Your task to perform on an android device: Go to ESPN.com Image 0: 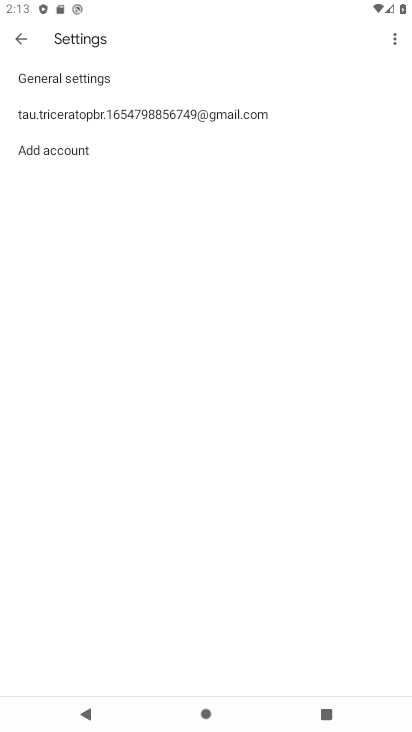
Step 0: press home button
Your task to perform on an android device: Go to ESPN.com Image 1: 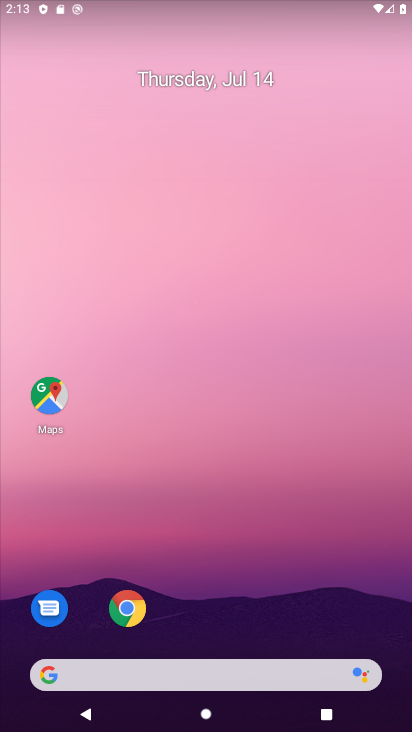
Step 1: drag from (203, 636) to (284, 177)
Your task to perform on an android device: Go to ESPN.com Image 2: 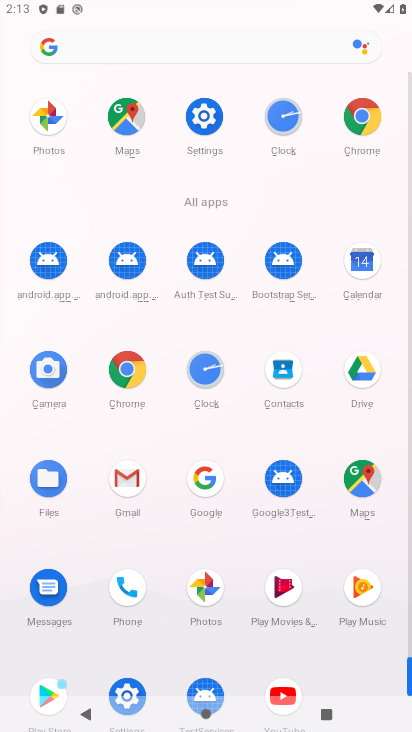
Step 2: click (135, 370)
Your task to perform on an android device: Go to ESPN.com Image 3: 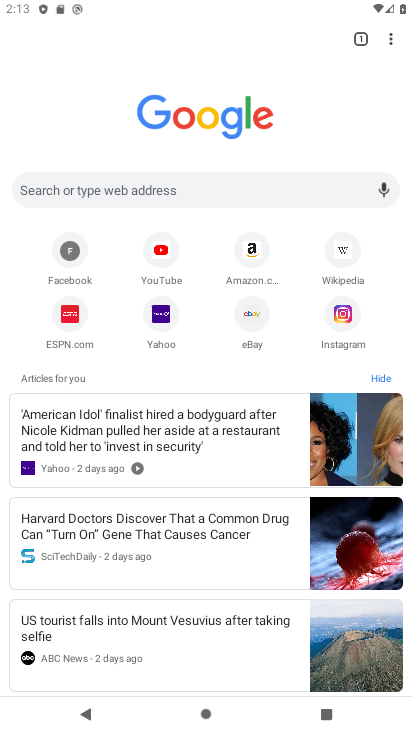
Step 3: click (71, 318)
Your task to perform on an android device: Go to ESPN.com Image 4: 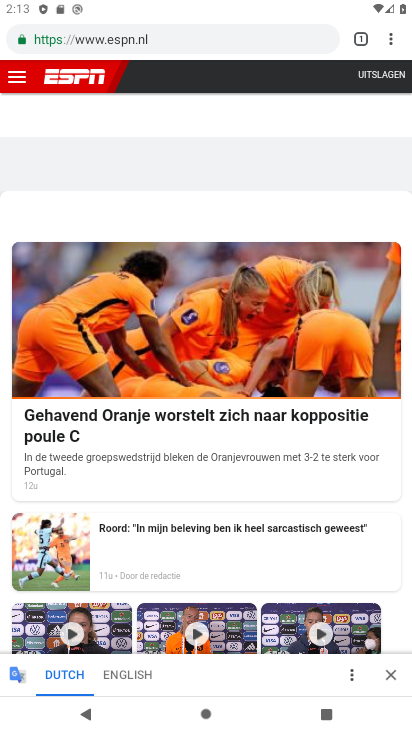
Step 4: task complete